Your task to perform on an android device: turn off wifi Image 0: 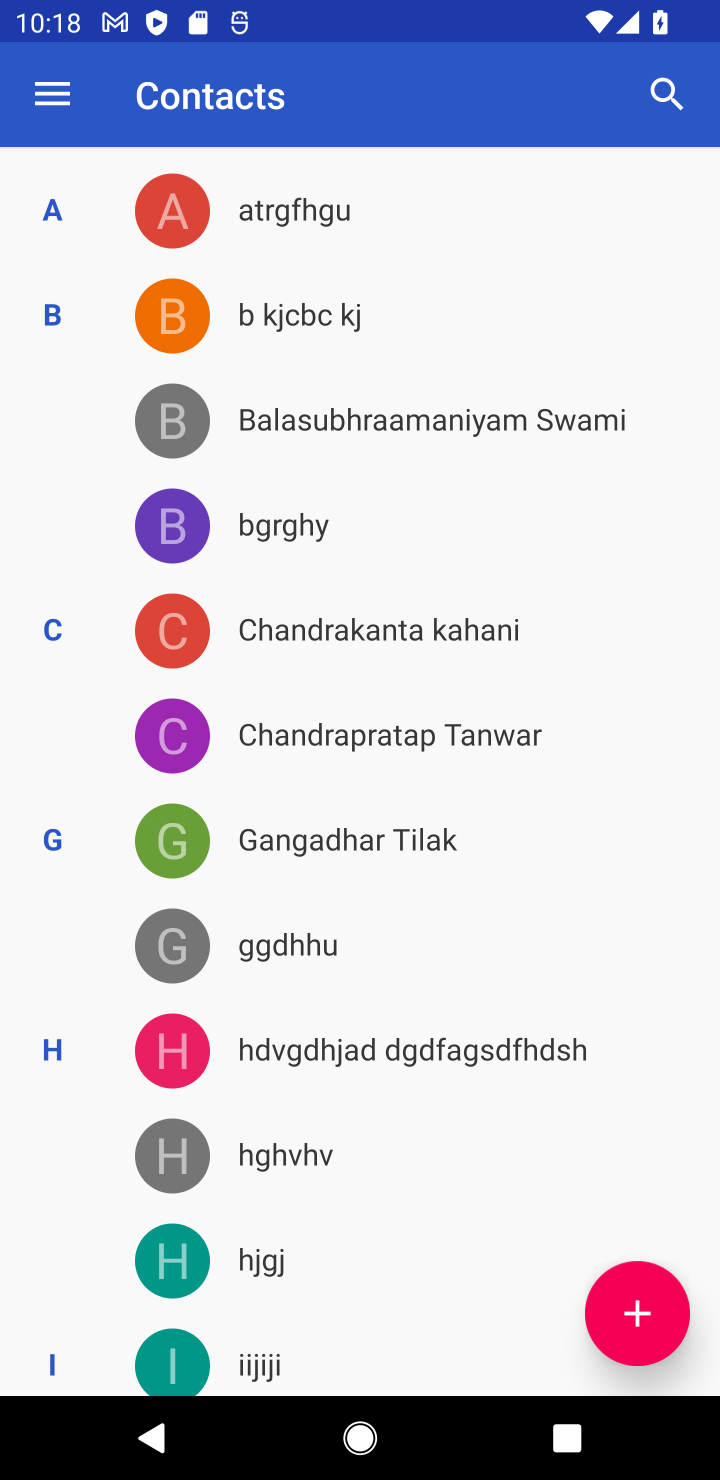
Step 0: press home button
Your task to perform on an android device: turn off wifi Image 1: 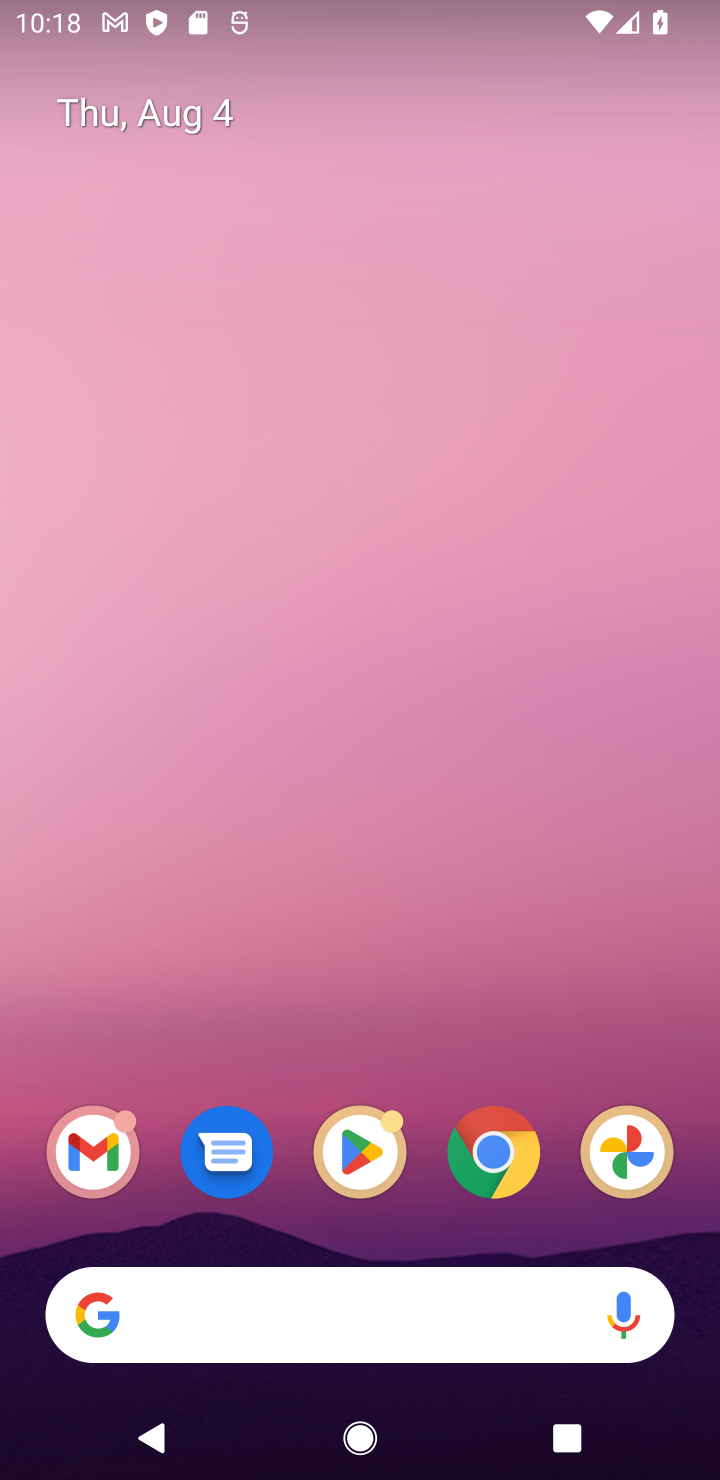
Step 1: drag from (336, 1183) to (389, 116)
Your task to perform on an android device: turn off wifi Image 2: 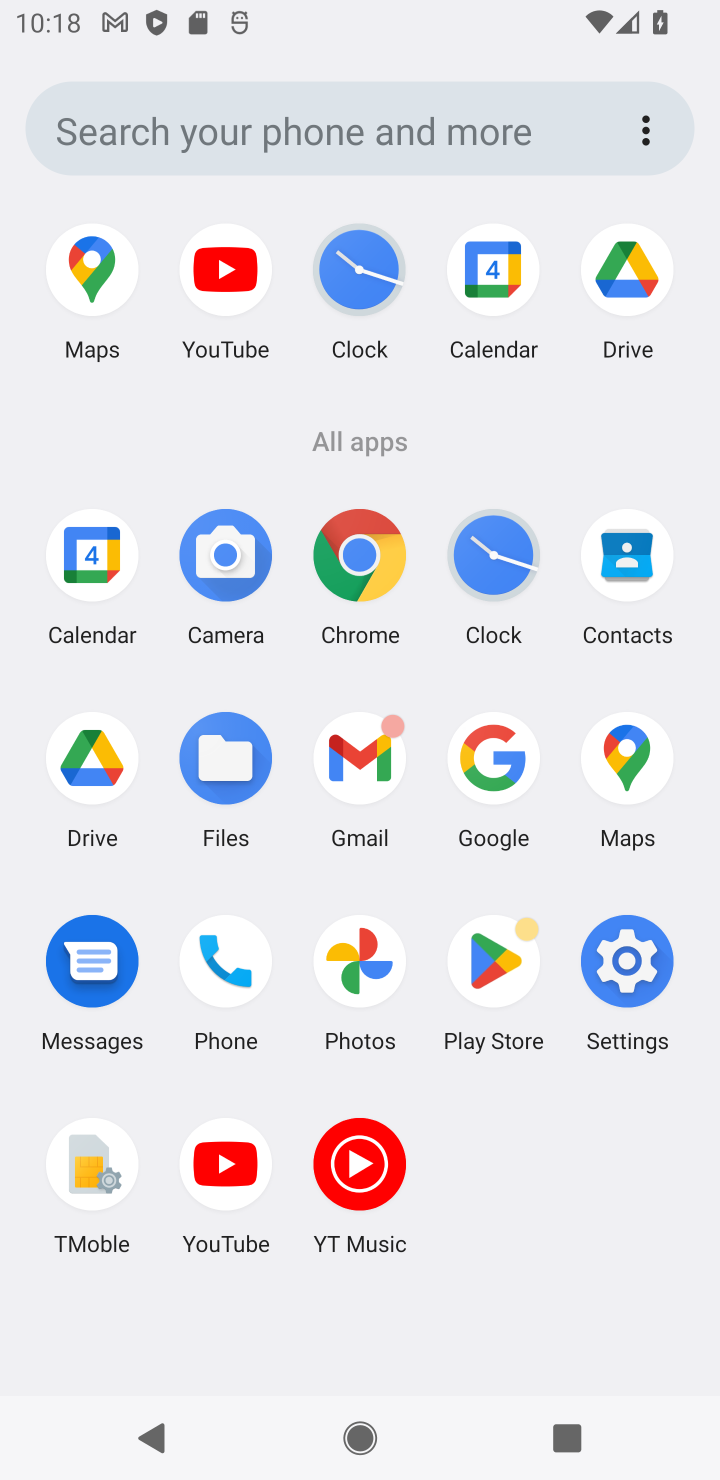
Step 2: click (634, 953)
Your task to perform on an android device: turn off wifi Image 3: 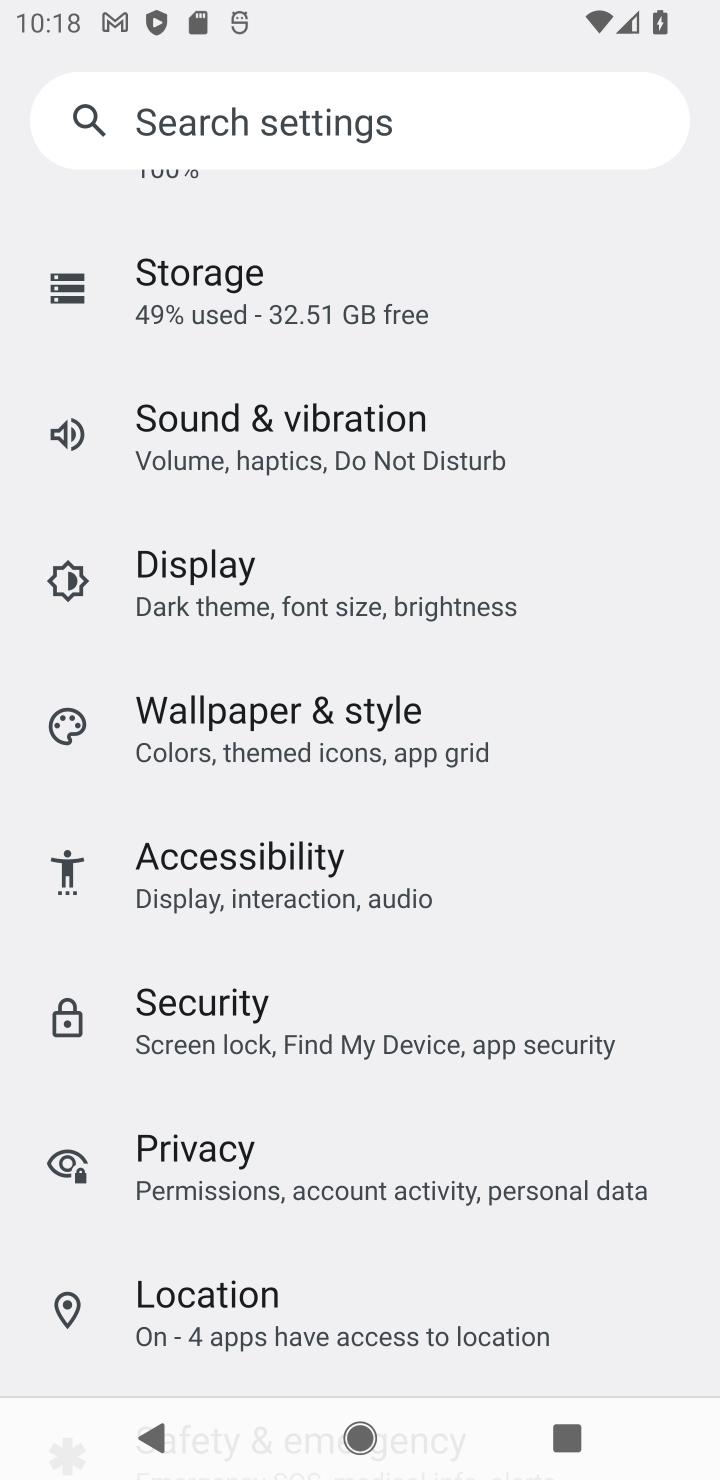
Step 3: drag from (328, 344) to (320, 767)
Your task to perform on an android device: turn off wifi Image 4: 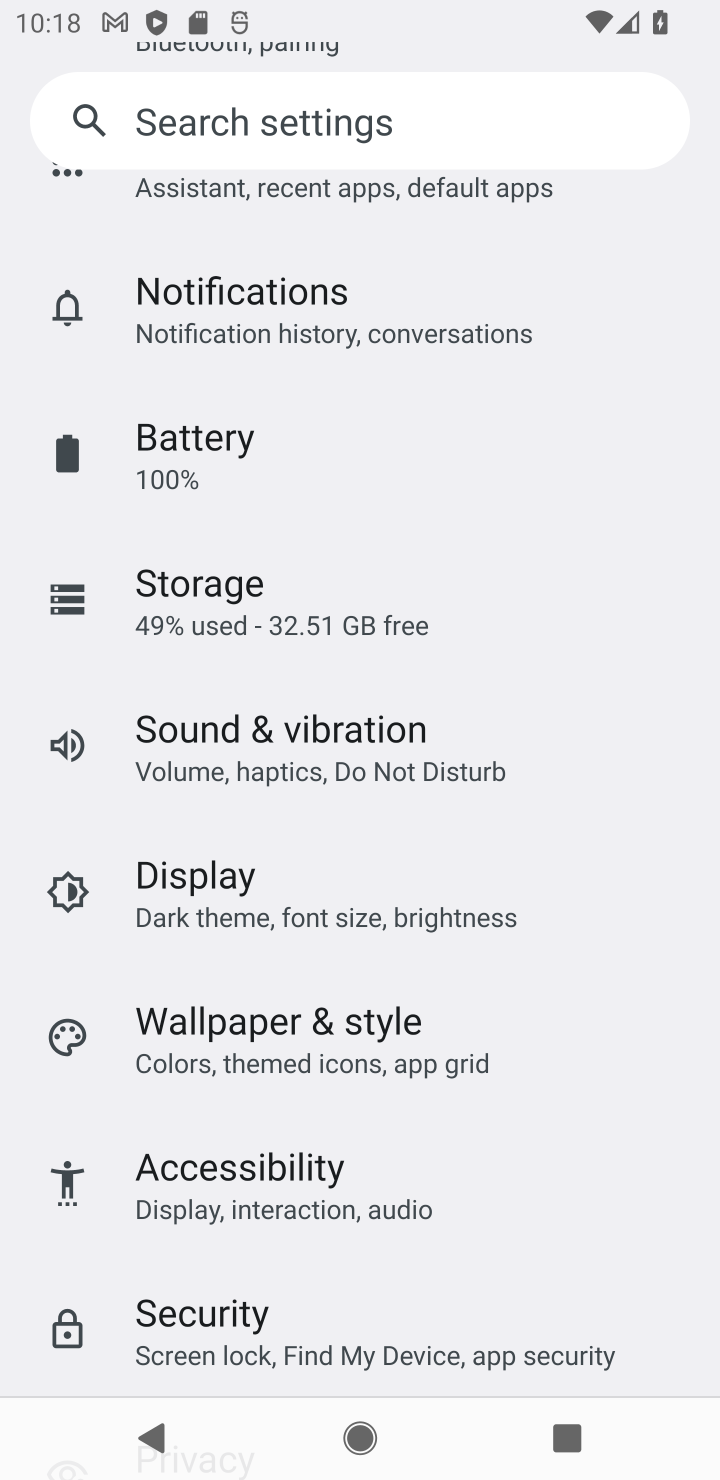
Step 4: drag from (316, 430) to (303, 1250)
Your task to perform on an android device: turn off wifi Image 5: 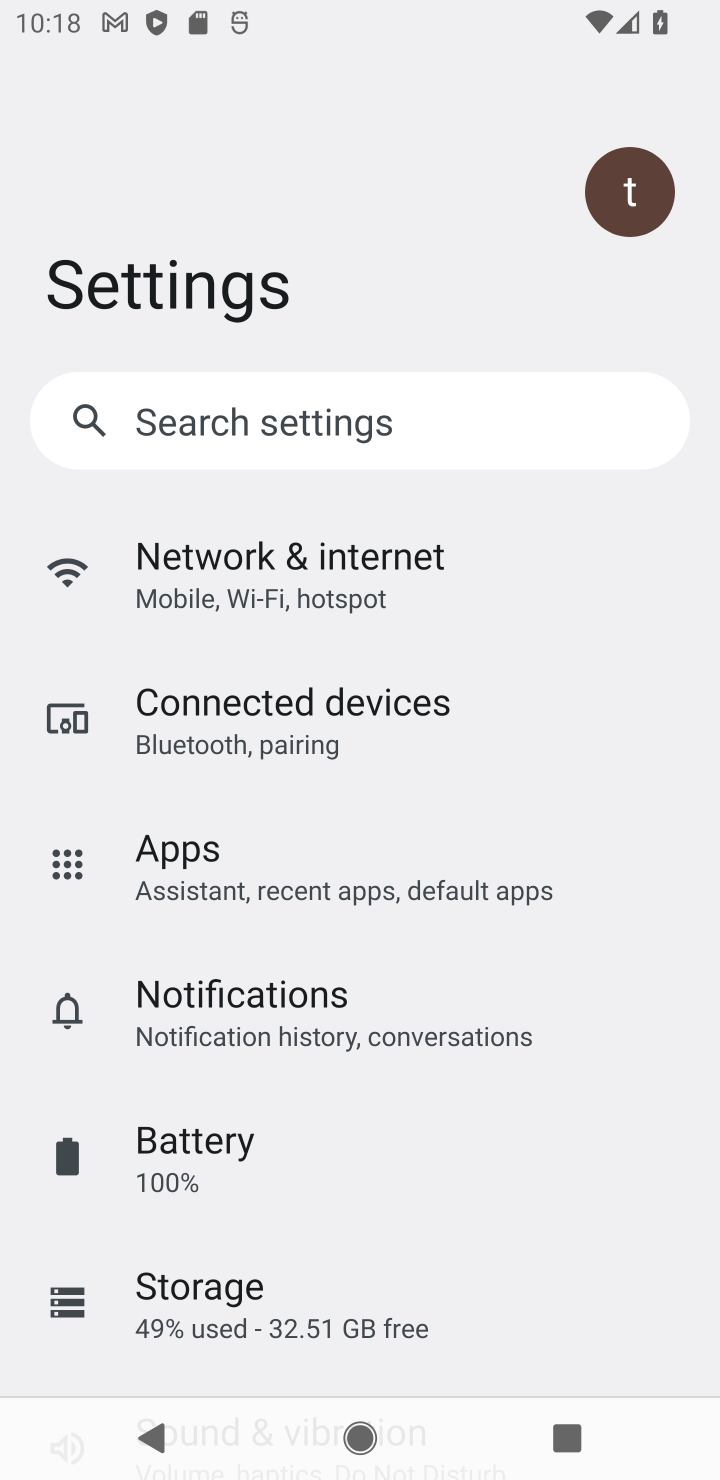
Step 5: click (316, 600)
Your task to perform on an android device: turn off wifi Image 6: 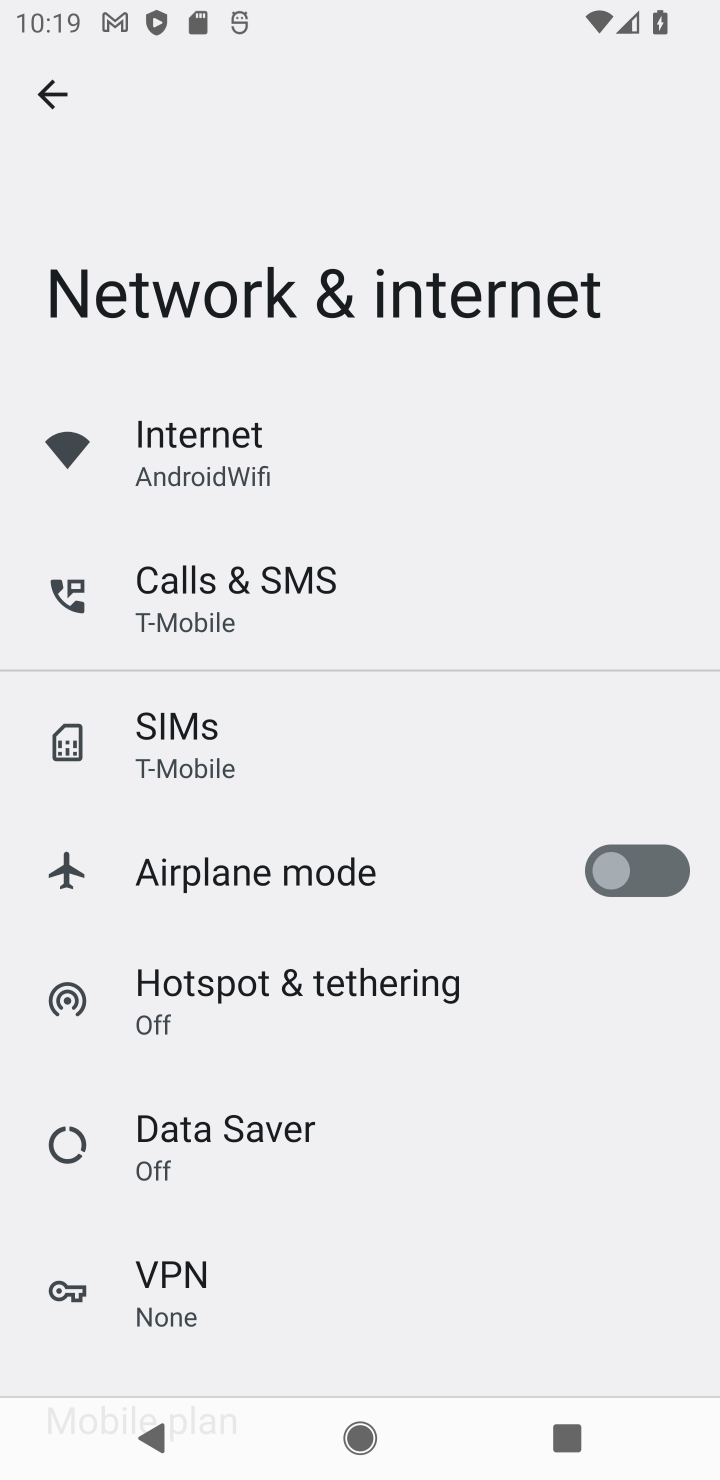
Step 6: click (249, 435)
Your task to perform on an android device: turn off wifi Image 7: 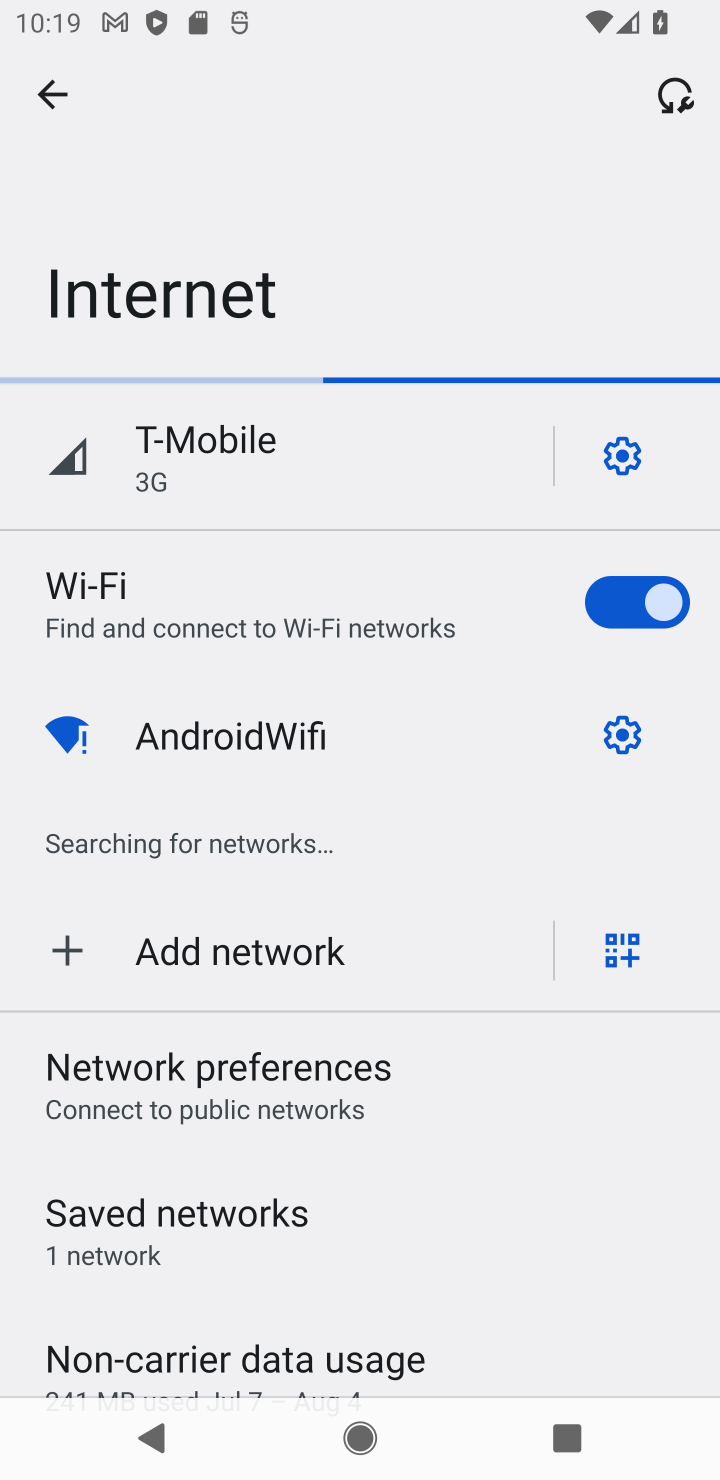
Step 7: click (564, 603)
Your task to perform on an android device: turn off wifi Image 8: 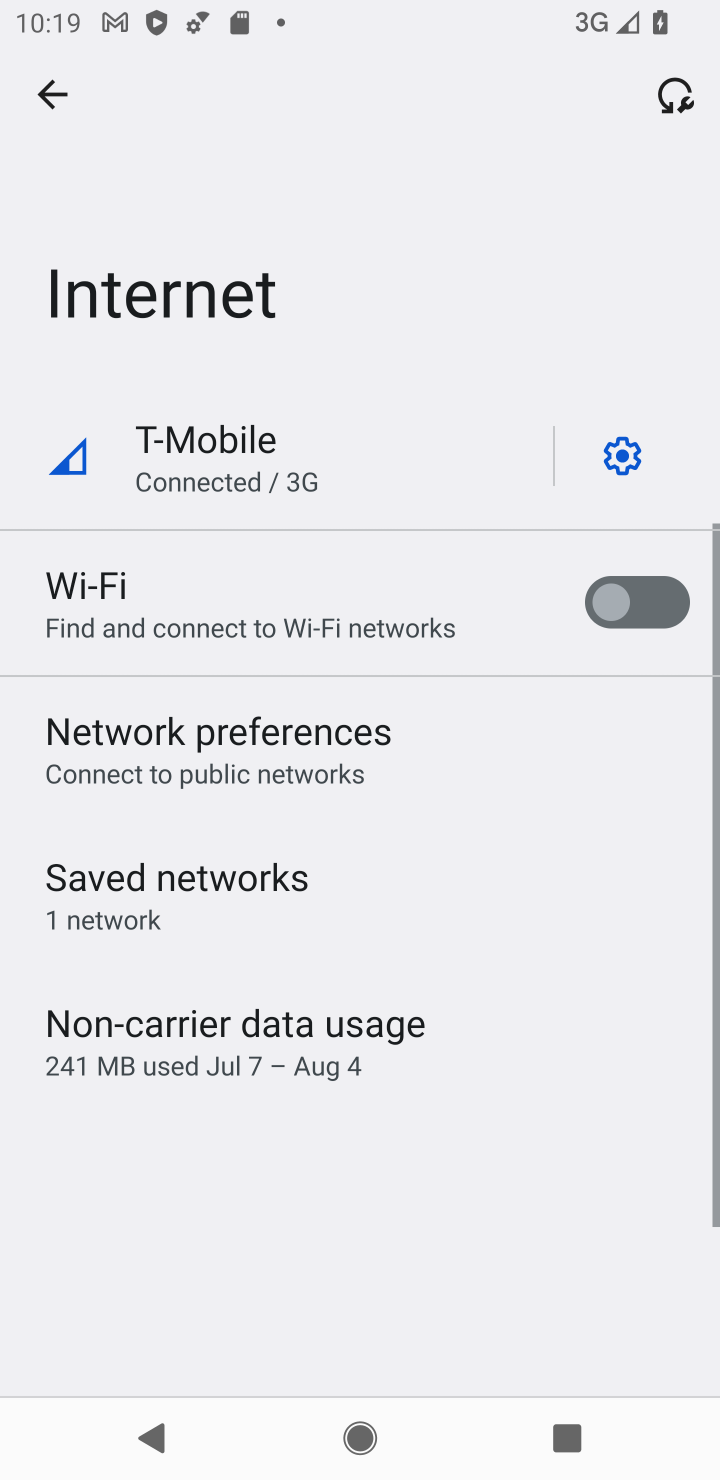
Step 8: task complete